Your task to perform on an android device: Show me productivity apps on the Play Store Image 0: 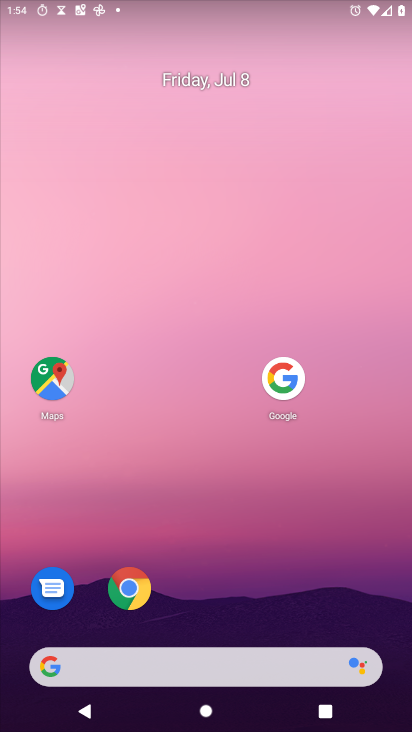
Step 0: drag from (197, 655) to (259, 16)
Your task to perform on an android device: Show me productivity apps on the Play Store Image 1: 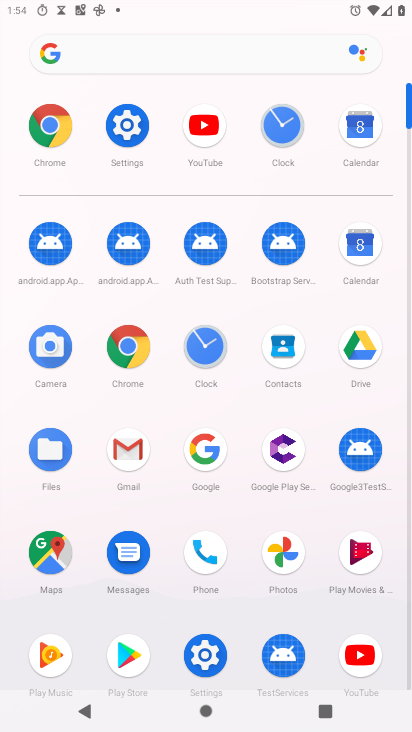
Step 1: click (125, 654)
Your task to perform on an android device: Show me productivity apps on the Play Store Image 2: 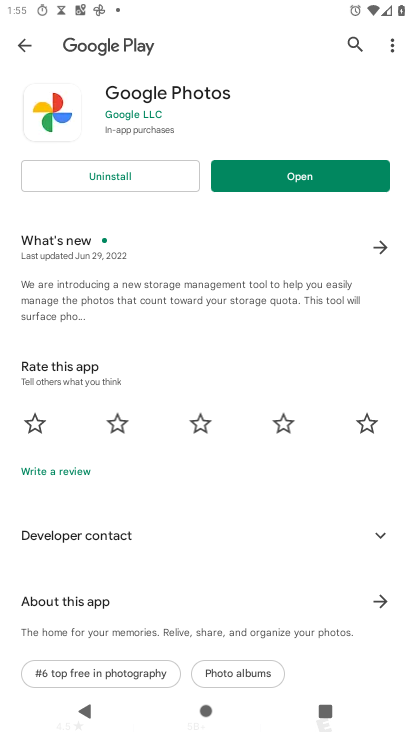
Step 2: click (22, 50)
Your task to perform on an android device: Show me productivity apps on the Play Store Image 3: 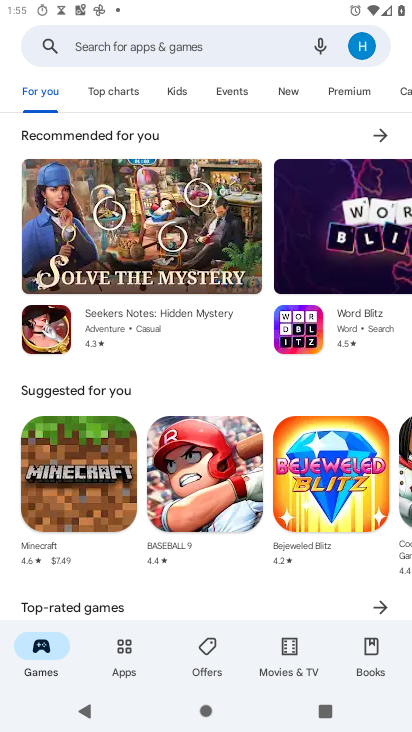
Step 3: click (119, 644)
Your task to perform on an android device: Show me productivity apps on the Play Store Image 4: 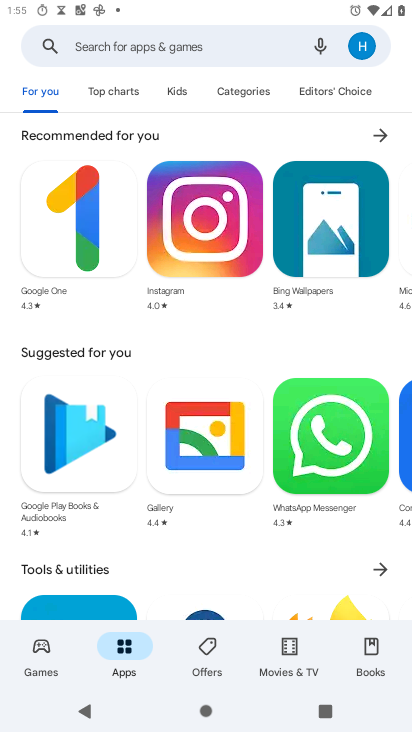
Step 4: click (261, 92)
Your task to perform on an android device: Show me productivity apps on the Play Store Image 5: 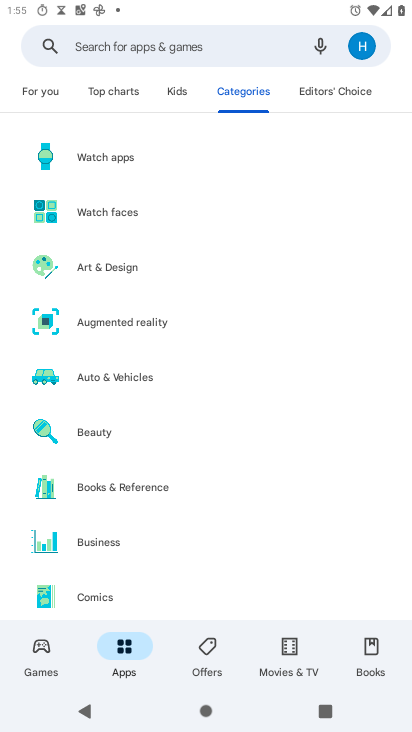
Step 5: drag from (171, 564) to (274, 137)
Your task to perform on an android device: Show me productivity apps on the Play Store Image 6: 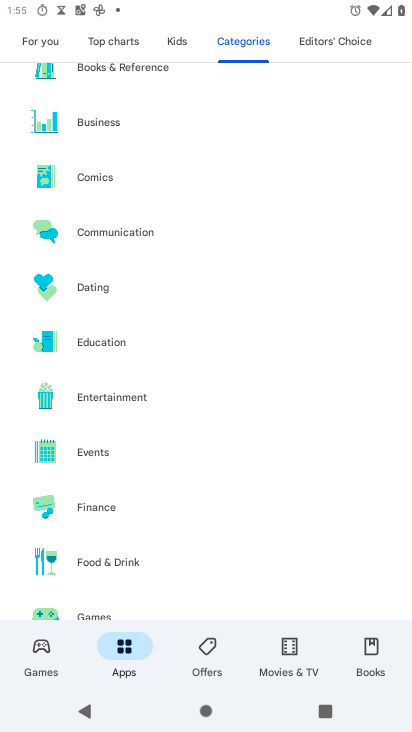
Step 6: drag from (181, 503) to (260, 56)
Your task to perform on an android device: Show me productivity apps on the Play Store Image 7: 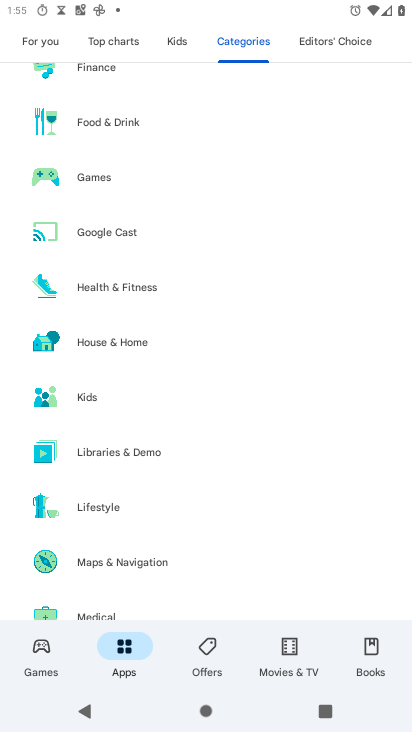
Step 7: drag from (178, 502) to (233, 120)
Your task to perform on an android device: Show me productivity apps on the Play Store Image 8: 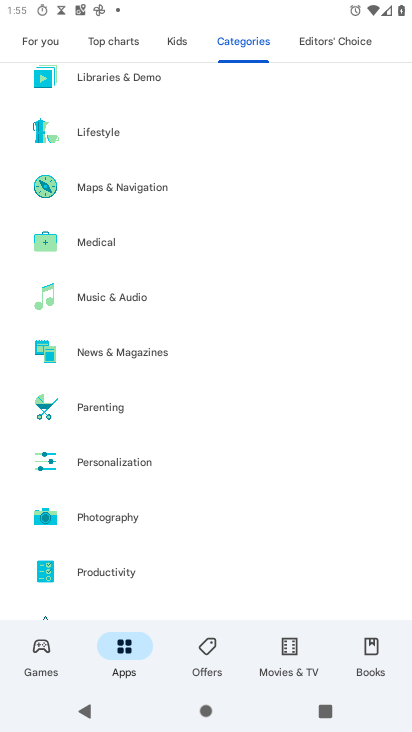
Step 8: drag from (164, 536) to (215, 259)
Your task to perform on an android device: Show me productivity apps on the Play Store Image 9: 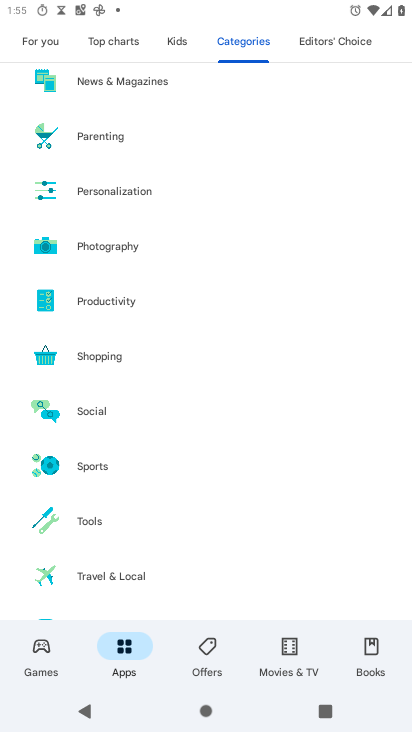
Step 9: click (111, 300)
Your task to perform on an android device: Show me productivity apps on the Play Store Image 10: 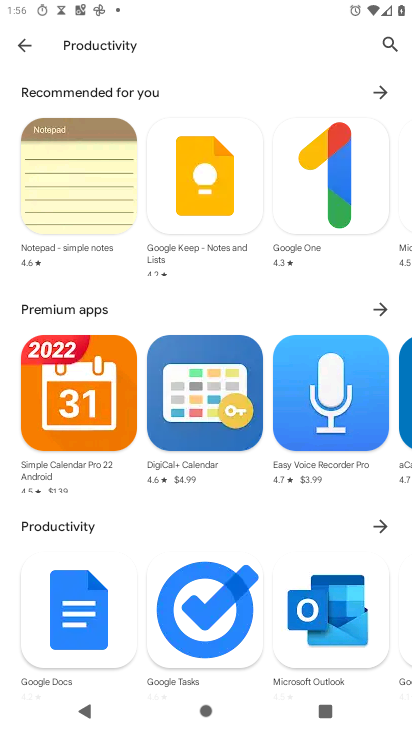
Step 10: task complete